Your task to perform on an android device: Open calendar and show me the first week of next month Image 0: 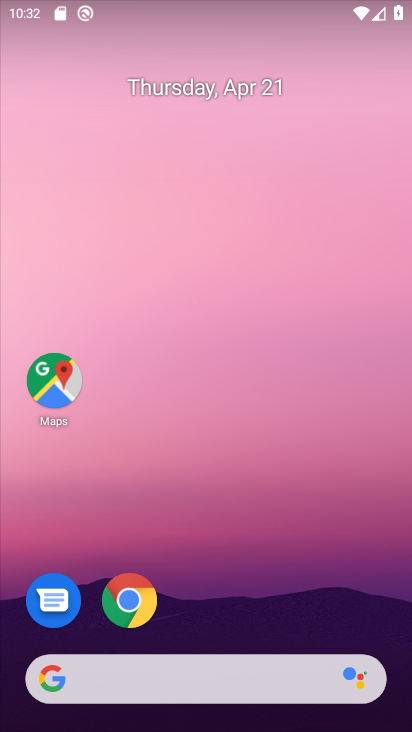
Step 0: drag from (336, 341) to (288, 12)
Your task to perform on an android device: Open calendar and show me the first week of next month Image 1: 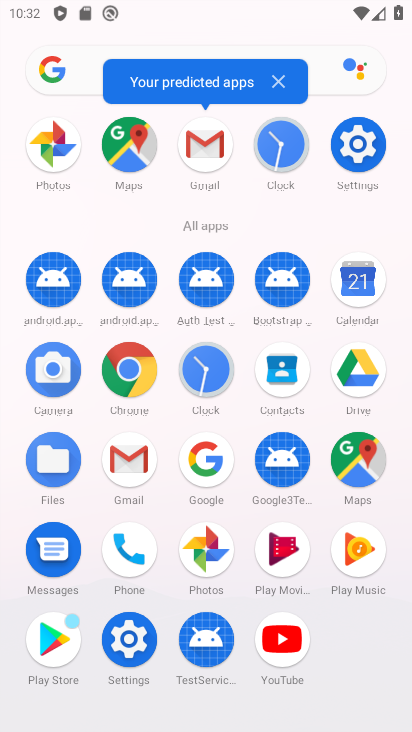
Step 1: click (378, 292)
Your task to perform on an android device: Open calendar and show me the first week of next month Image 2: 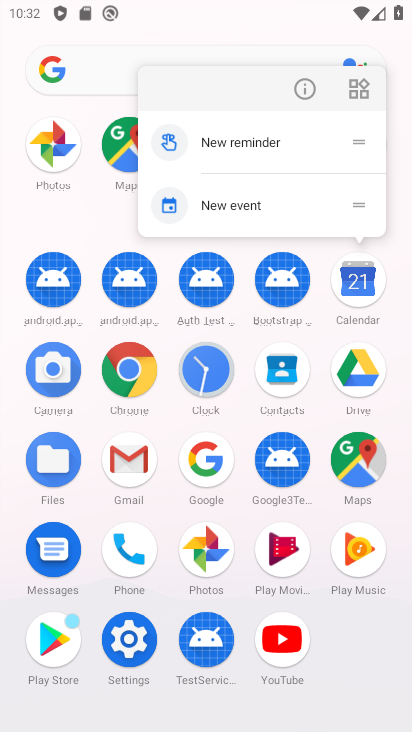
Step 2: click (364, 289)
Your task to perform on an android device: Open calendar and show me the first week of next month Image 3: 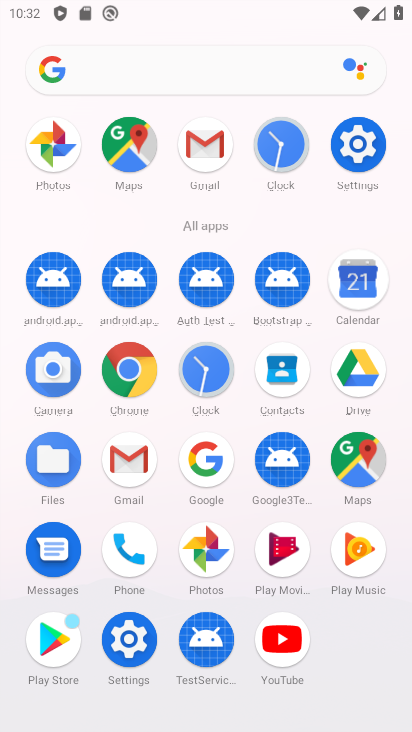
Step 3: click (364, 289)
Your task to perform on an android device: Open calendar and show me the first week of next month Image 4: 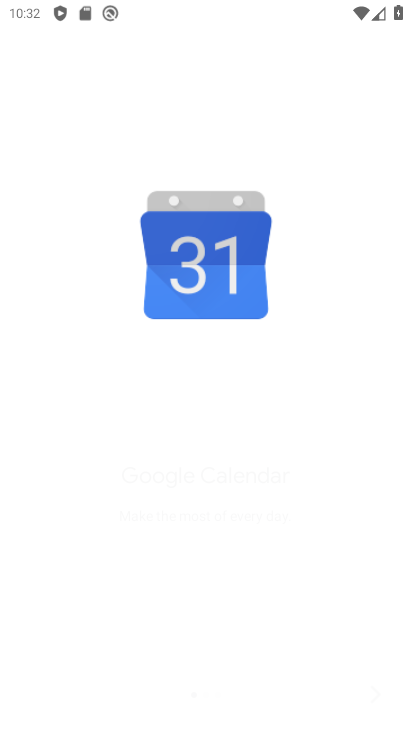
Step 4: click (364, 289)
Your task to perform on an android device: Open calendar and show me the first week of next month Image 5: 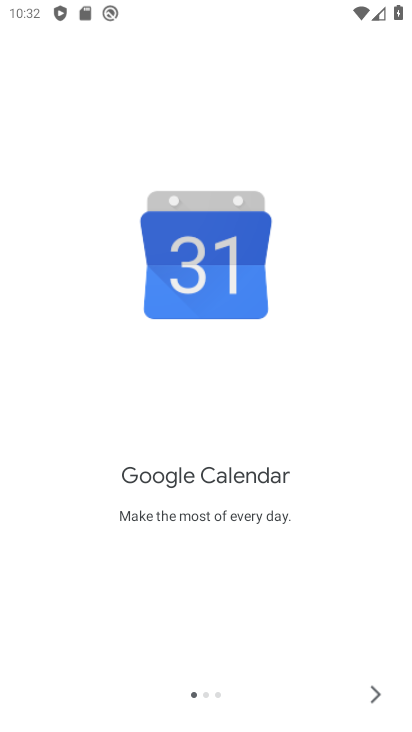
Step 5: click (375, 697)
Your task to perform on an android device: Open calendar and show me the first week of next month Image 6: 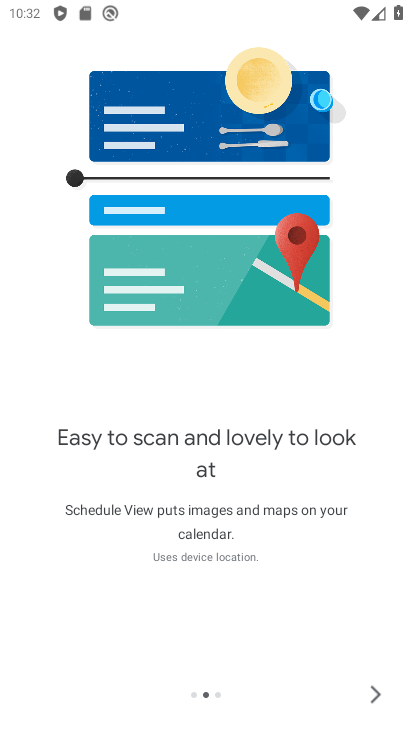
Step 6: click (359, 704)
Your task to perform on an android device: Open calendar and show me the first week of next month Image 7: 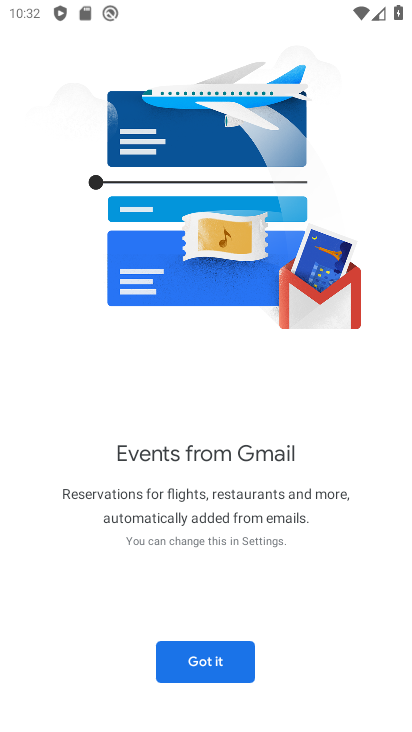
Step 7: click (232, 672)
Your task to perform on an android device: Open calendar and show me the first week of next month Image 8: 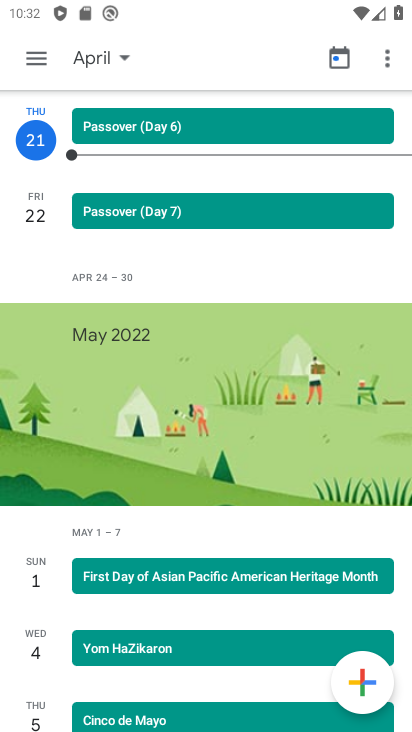
Step 8: click (106, 57)
Your task to perform on an android device: Open calendar and show me the first week of next month Image 9: 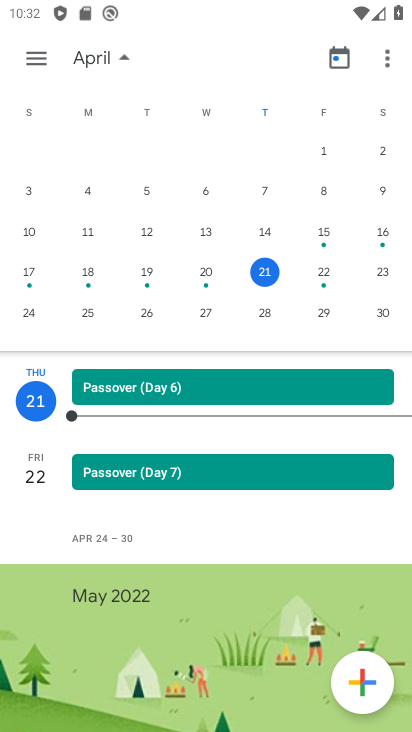
Step 9: drag from (168, 243) to (0, 273)
Your task to perform on an android device: Open calendar and show me the first week of next month Image 10: 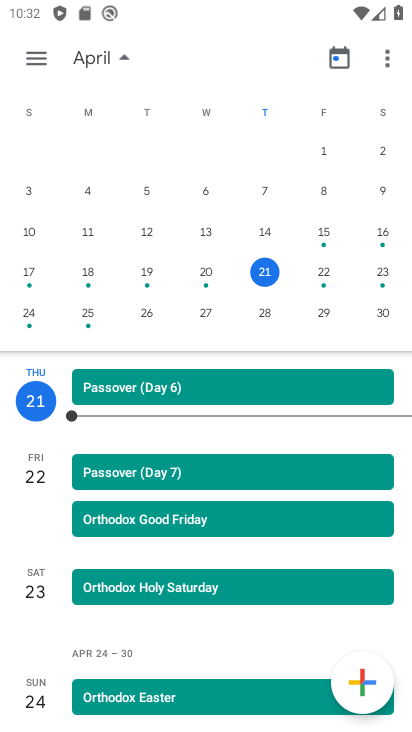
Step 10: click (317, 143)
Your task to perform on an android device: Open calendar and show me the first week of next month Image 11: 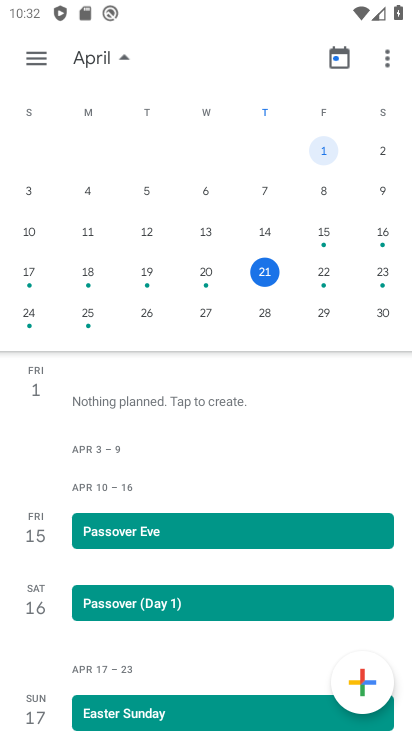
Step 11: task complete